Your task to perform on an android device: Go to Wikipedia Image 0: 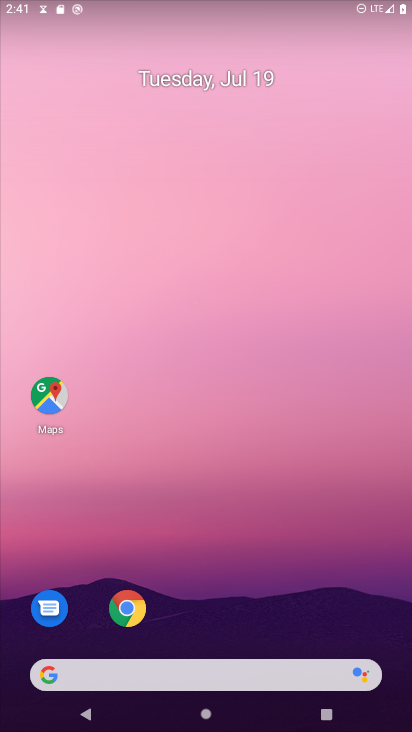
Step 0: drag from (296, 655) to (264, 85)
Your task to perform on an android device: Go to Wikipedia Image 1: 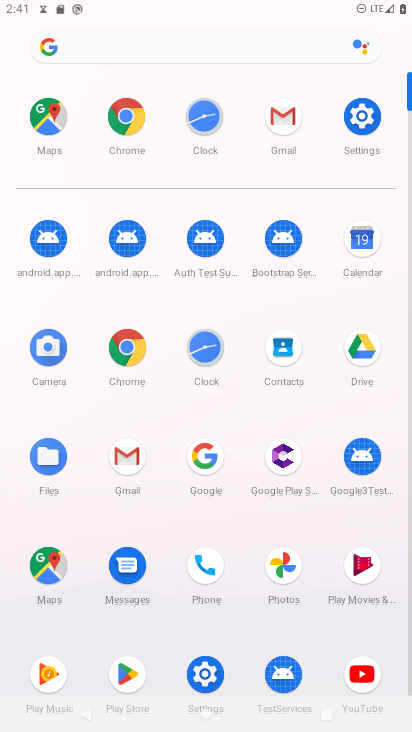
Step 1: click (140, 353)
Your task to perform on an android device: Go to Wikipedia Image 2: 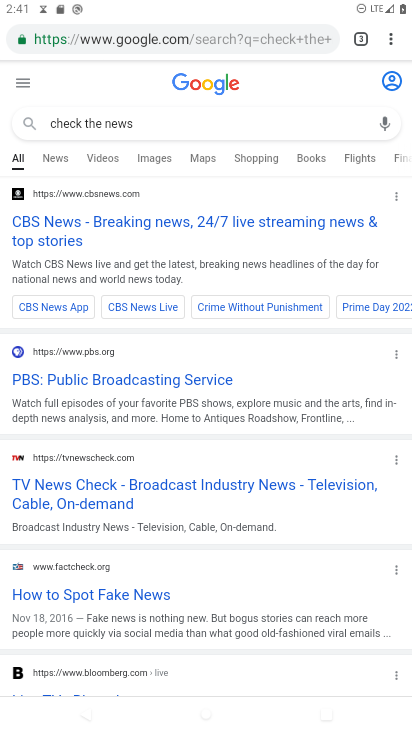
Step 2: click (196, 45)
Your task to perform on an android device: Go to Wikipedia Image 3: 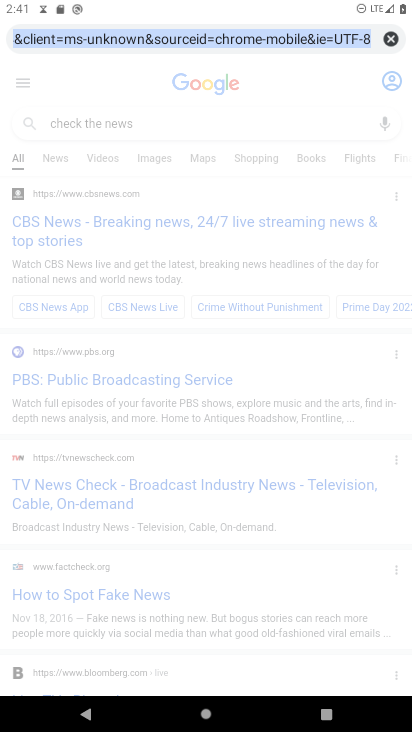
Step 3: type "wikipedia"
Your task to perform on an android device: Go to Wikipedia Image 4: 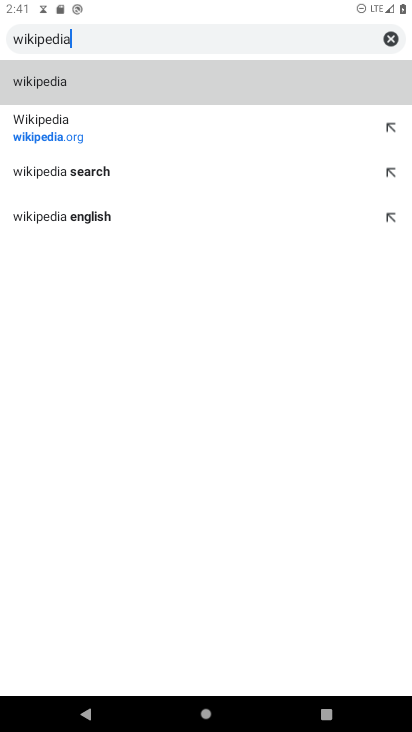
Step 4: click (89, 134)
Your task to perform on an android device: Go to Wikipedia Image 5: 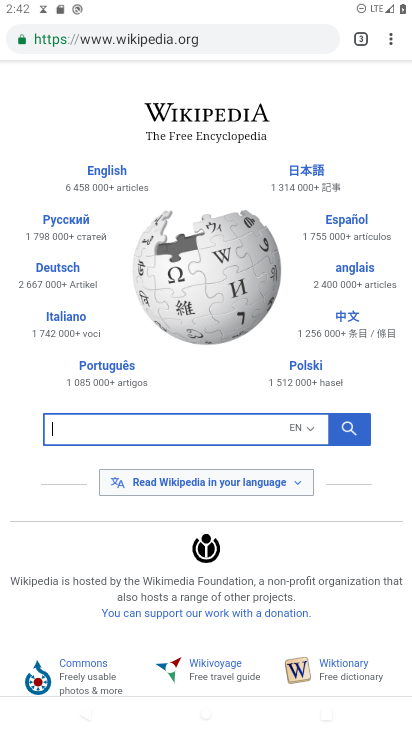
Step 5: task complete